Your task to perform on an android device: Go to sound settings Image 0: 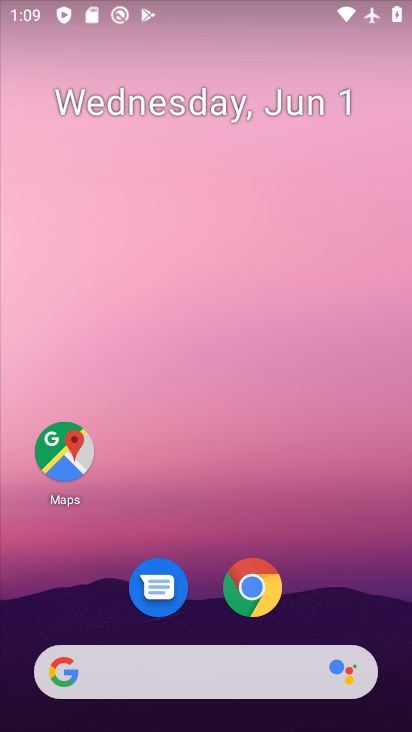
Step 0: drag from (286, 494) to (204, 125)
Your task to perform on an android device: Go to sound settings Image 1: 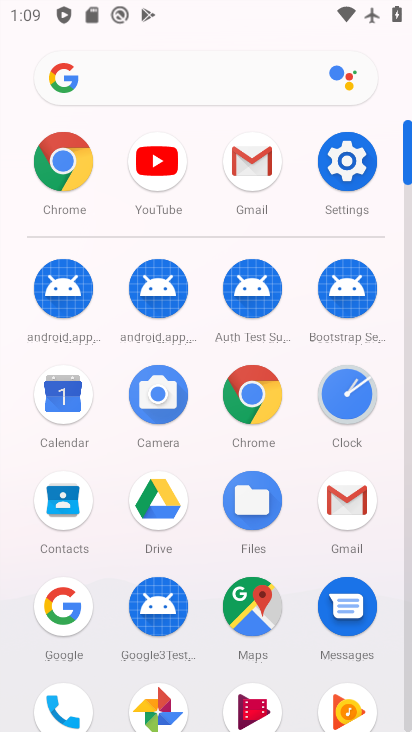
Step 1: click (354, 158)
Your task to perform on an android device: Go to sound settings Image 2: 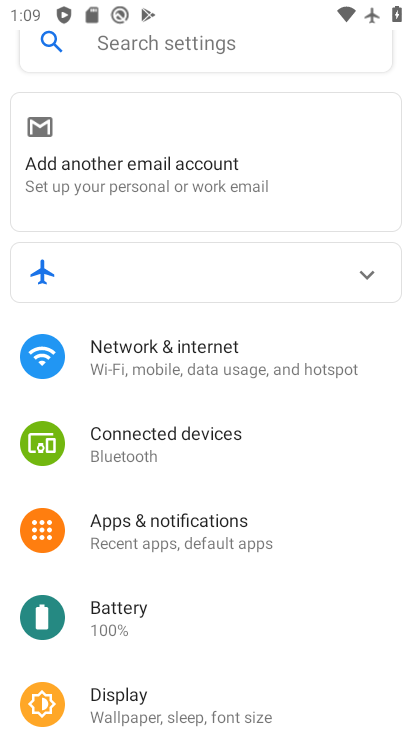
Step 2: drag from (228, 640) to (228, 298)
Your task to perform on an android device: Go to sound settings Image 3: 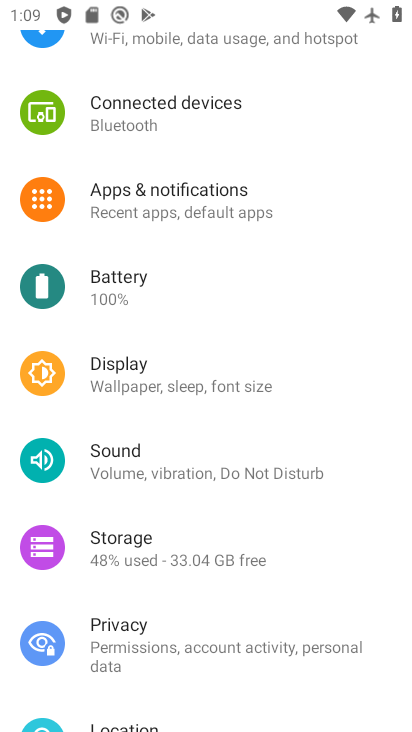
Step 3: click (123, 445)
Your task to perform on an android device: Go to sound settings Image 4: 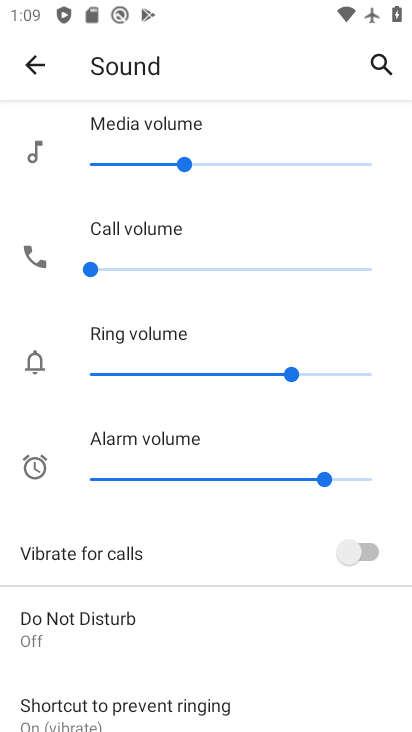
Step 4: task complete